Your task to perform on an android device: Open settings on Google Maps Image 0: 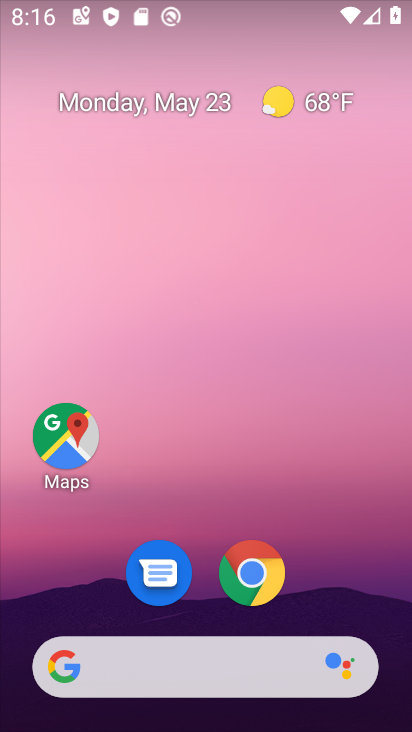
Step 0: drag from (212, 724) to (213, 235)
Your task to perform on an android device: Open settings on Google Maps Image 1: 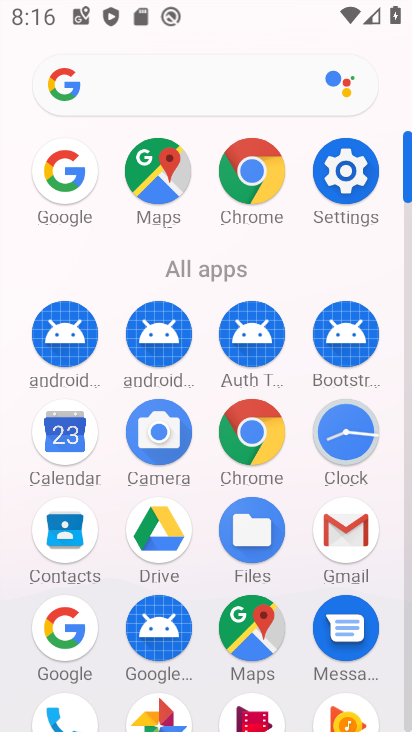
Step 1: click (162, 189)
Your task to perform on an android device: Open settings on Google Maps Image 2: 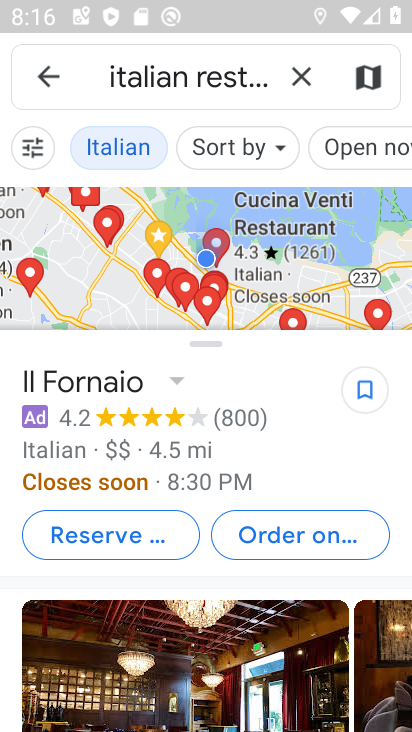
Step 2: click (44, 77)
Your task to perform on an android device: Open settings on Google Maps Image 3: 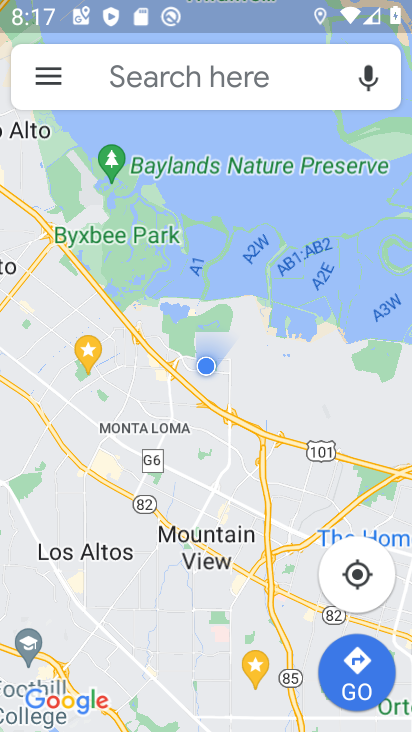
Step 3: click (57, 79)
Your task to perform on an android device: Open settings on Google Maps Image 4: 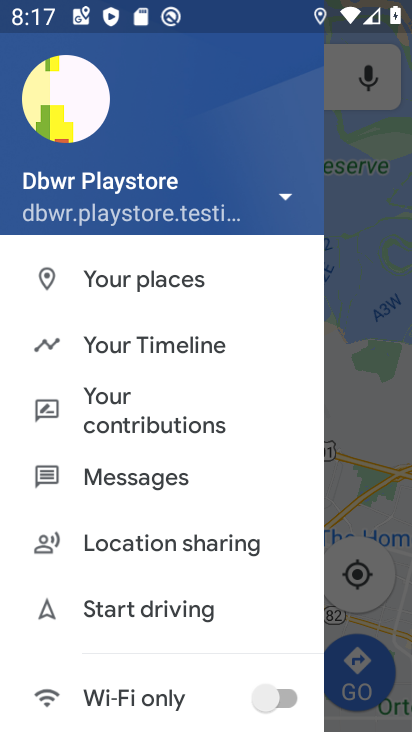
Step 4: drag from (129, 598) to (103, 216)
Your task to perform on an android device: Open settings on Google Maps Image 5: 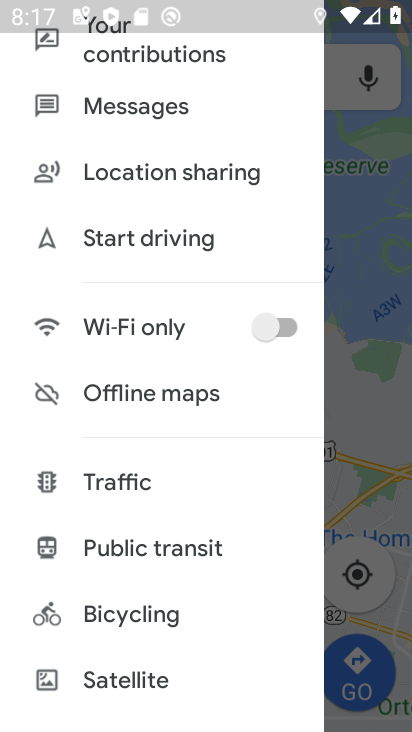
Step 5: drag from (113, 510) to (178, 0)
Your task to perform on an android device: Open settings on Google Maps Image 6: 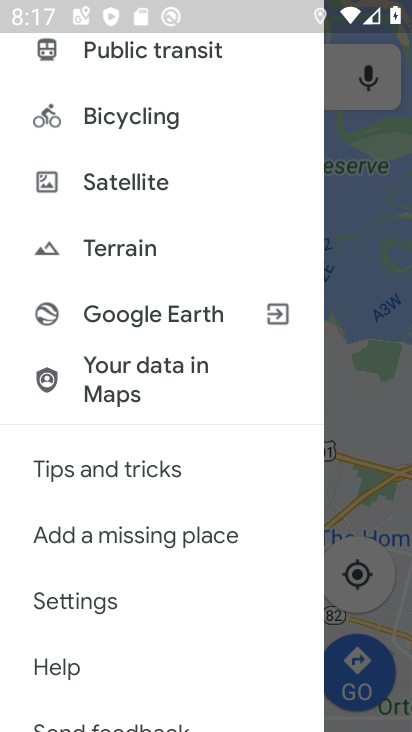
Step 6: drag from (129, 539) to (161, 178)
Your task to perform on an android device: Open settings on Google Maps Image 7: 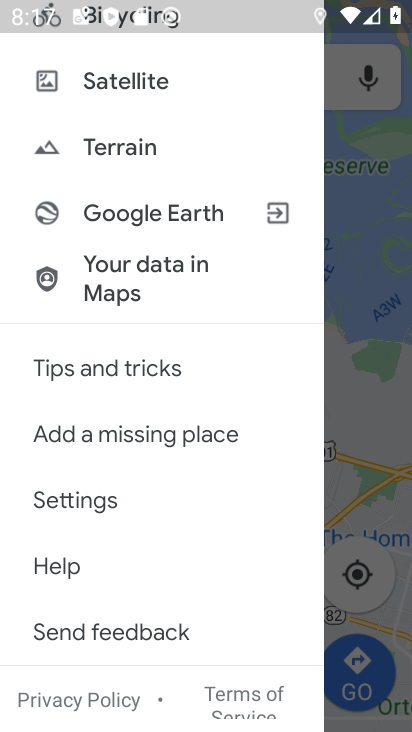
Step 7: click (103, 506)
Your task to perform on an android device: Open settings on Google Maps Image 8: 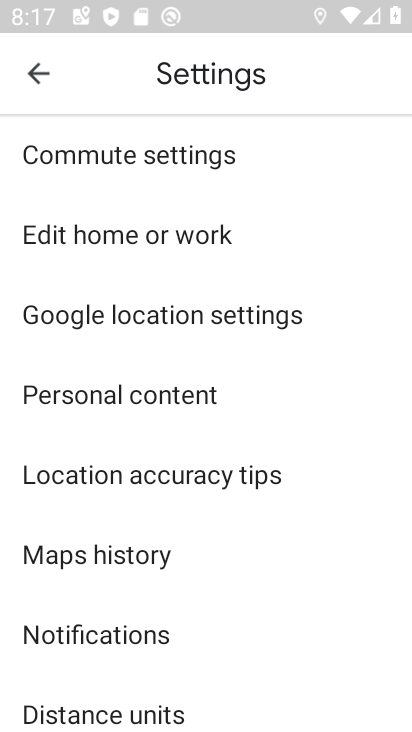
Step 8: task complete